Your task to perform on an android device: turn on sleep mode Image 0: 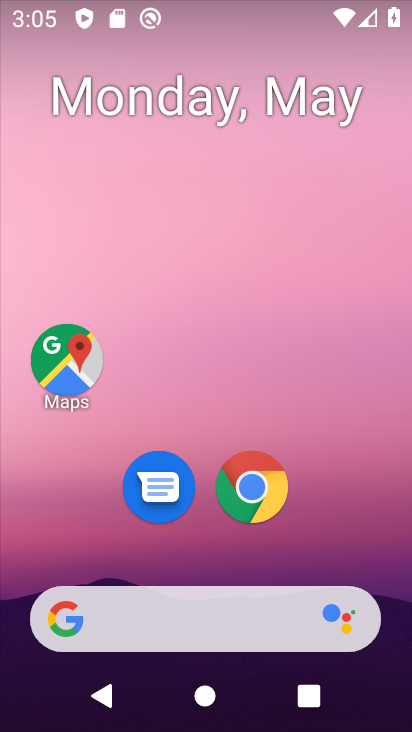
Step 0: drag from (190, 546) to (212, 271)
Your task to perform on an android device: turn on sleep mode Image 1: 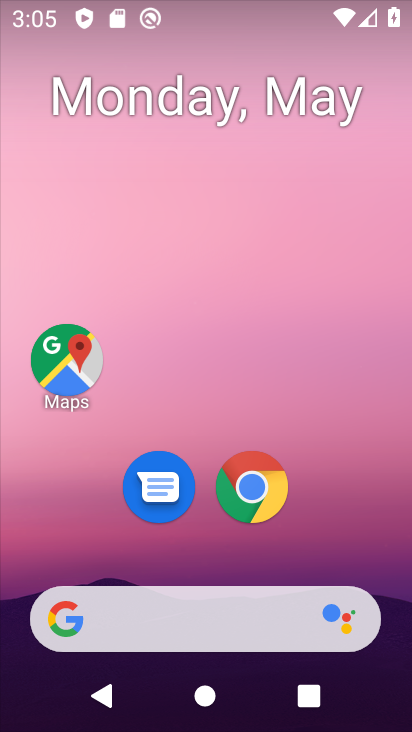
Step 1: drag from (199, 551) to (198, 10)
Your task to perform on an android device: turn on sleep mode Image 2: 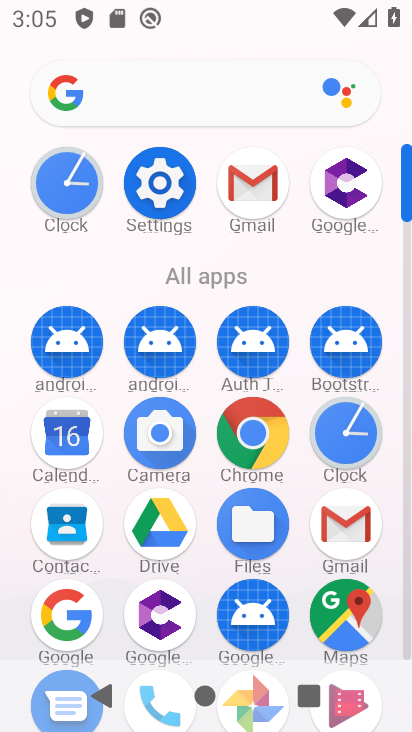
Step 2: click (155, 166)
Your task to perform on an android device: turn on sleep mode Image 3: 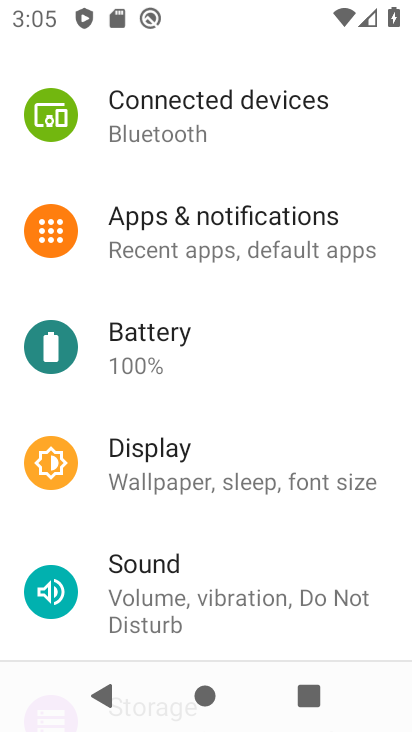
Step 3: drag from (233, 492) to (260, 72)
Your task to perform on an android device: turn on sleep mode Image 4: 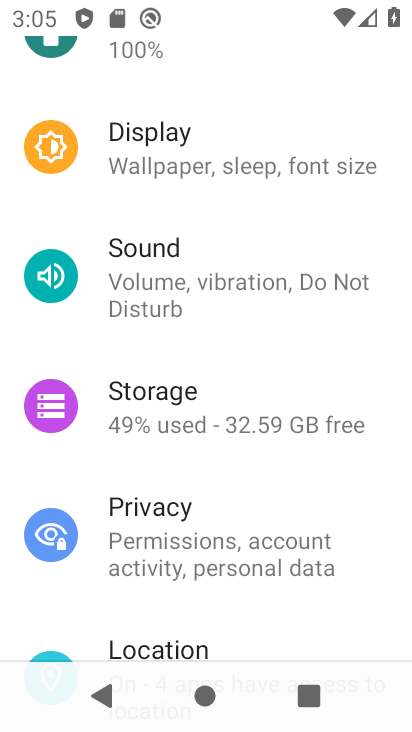
Step 4: drag from (232, 528) to (332, 131)
Your task to perform on an android device: turn on sleep mode Image 5: 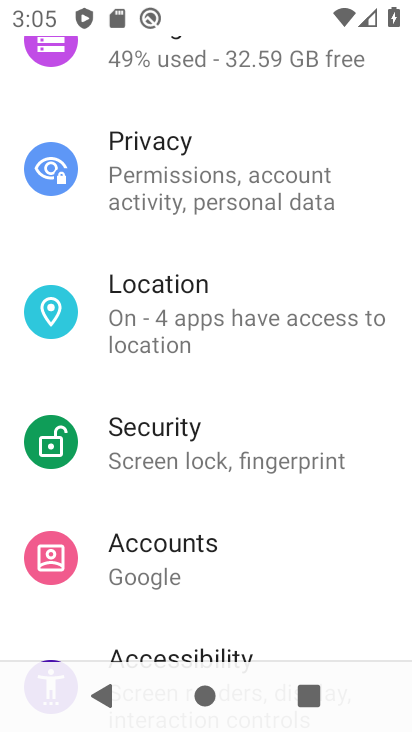
Step 5: drag from (231, 488) to (252, 163)
Your task to perform on an android device: turn on sleep mode Image 6: 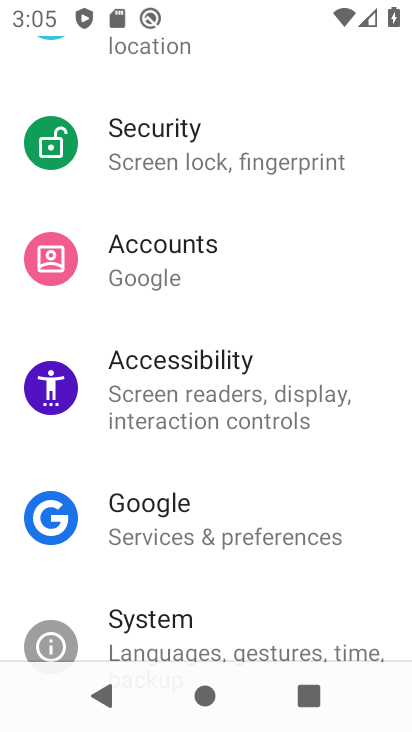
Step 6: drag from (182, 571) to (235, 217)
Your task to perform on an android device: turn on sleep mode Image 7: 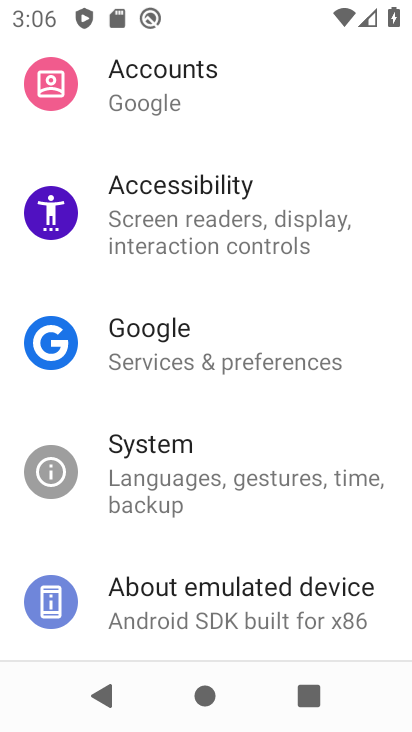
Step 7: drag from (211, 197) to (298, 722)
Your task to perform on an android device: turn on sleep mode Image 8: 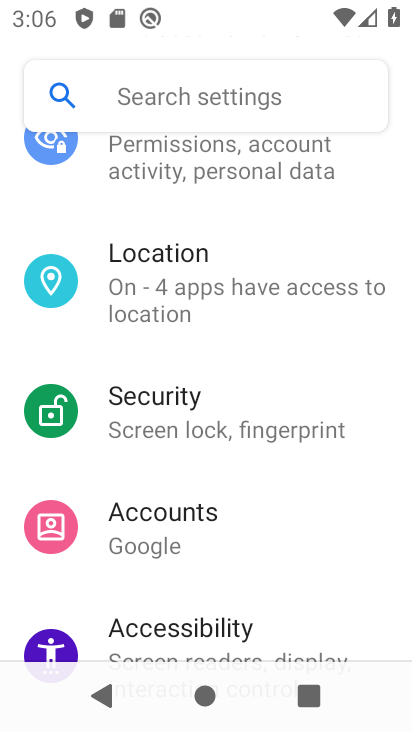
Step 8: drag from (194, 242) to (270, 728)
Your task to perform on an android device: turn on sleep mode Image 9: 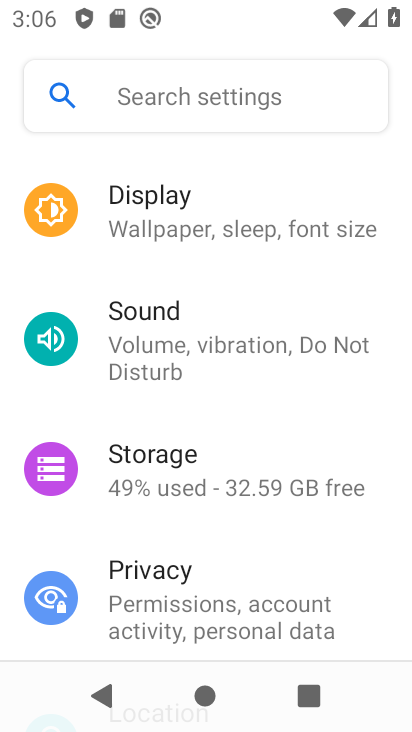
Step 9: click (182, 232)
Your task to perform on an android device: turn on sleep mode Image 10: 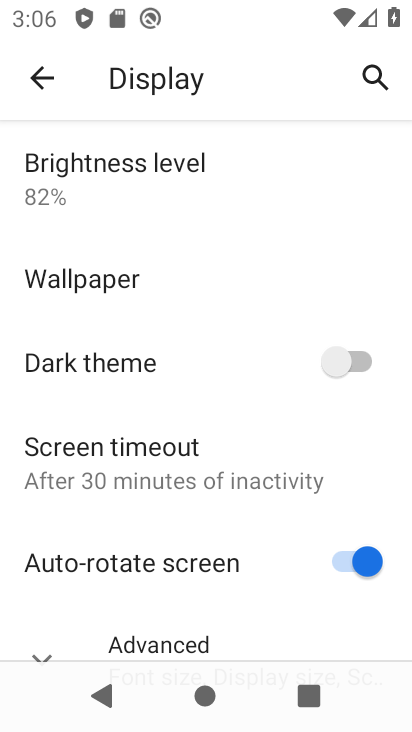
Step 10: drag from (216, 495) to (241, 201)
Your task to perform on an android device: turn on sleep mode Image 11: 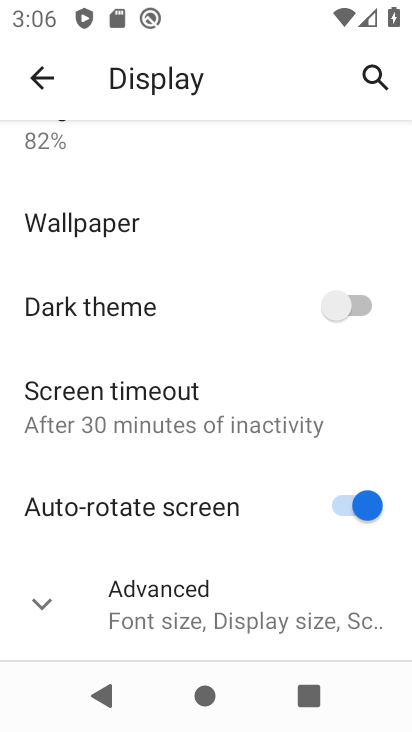
Step 11: click (199, 403)
Your task to perform on an android device: turn on sleep mode Image 12: 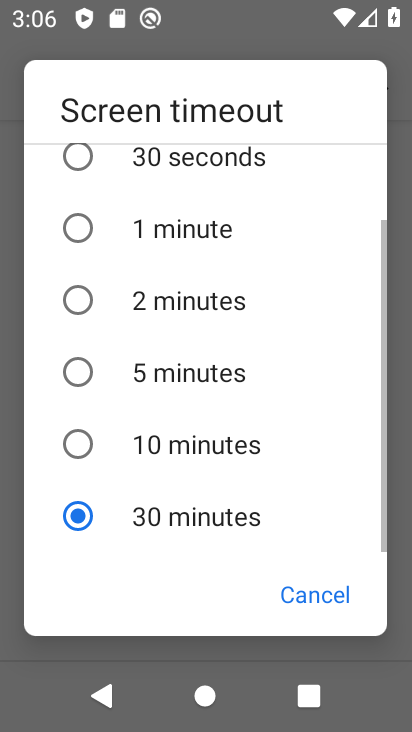
Step 12: click (133, 301)
Your task to perform on an android device: turn on sleep mode Image 13: 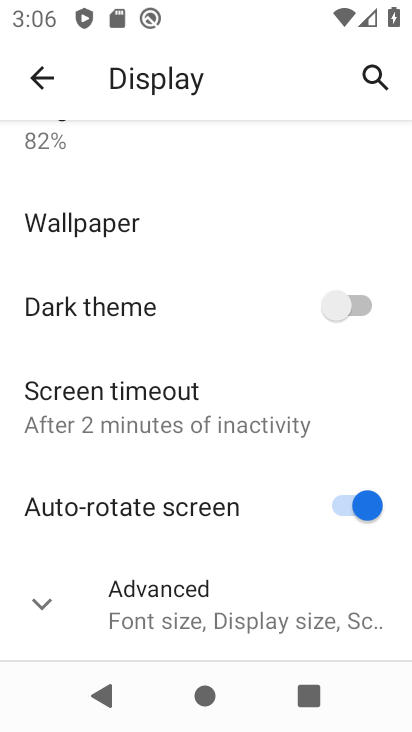
Step 13: task complete